Your task to perform on an android device: Go to Yahoo.com Image 0: 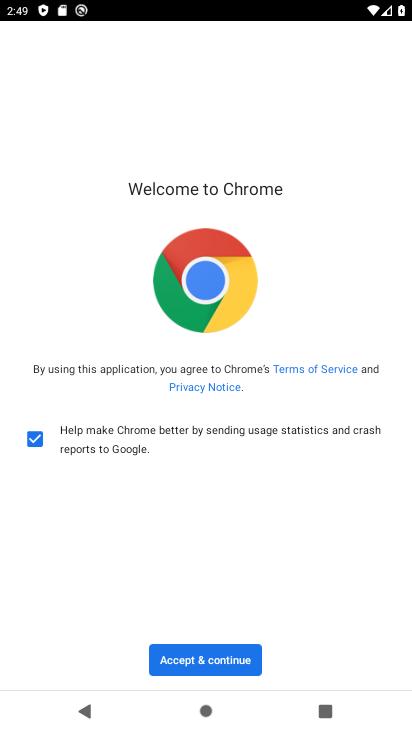
Step 0: press home button
Your task to perform on an android device: Go to Yahoo.com Image 1: 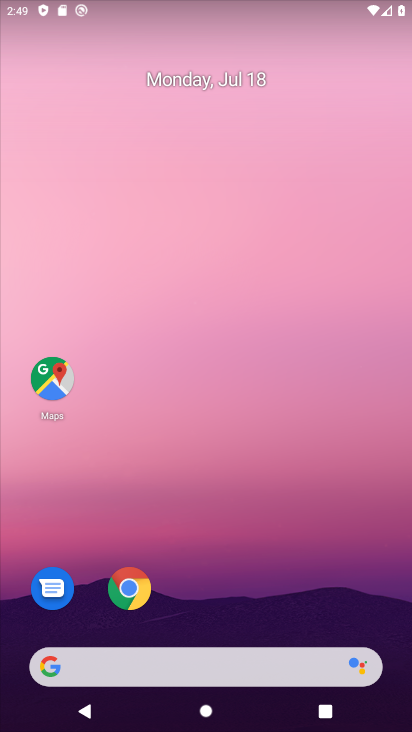
Step 1: drag from (186, 632) to (292, 107)
Your task to perform on an android device: Go to Yahoo.com Image 2: 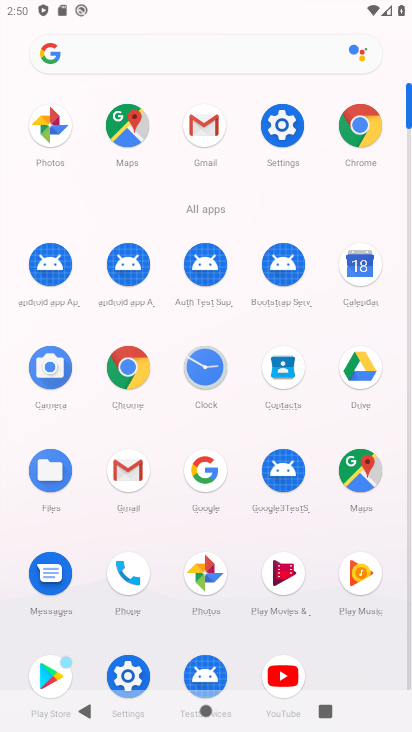
Step 2: click (278, 140)
Your task to perform on an android device: Go to Yahoo.com Image 3: 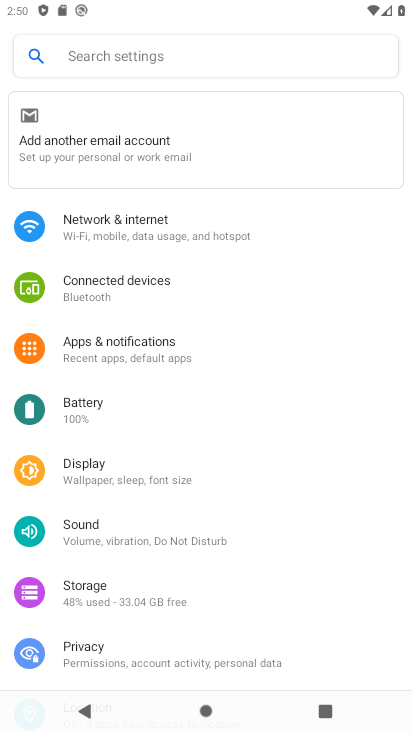
Step 3: press home button
Your task to perform on an android device: Go to Yahoo.com Image 4: 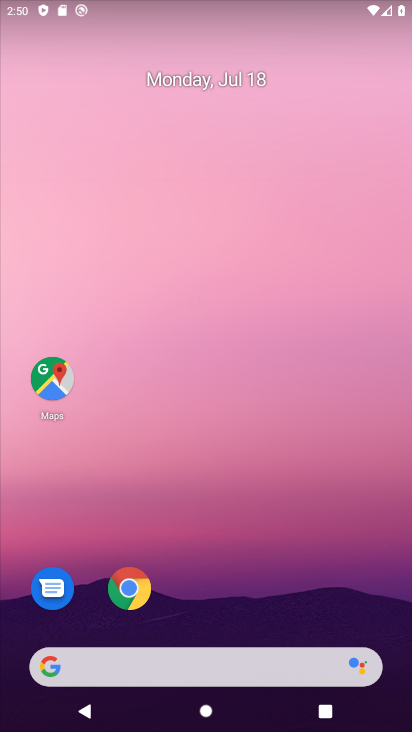
Step 4: click (142, 584)
Your task to perform on an android device: Go to Yahoo.com Image 5: 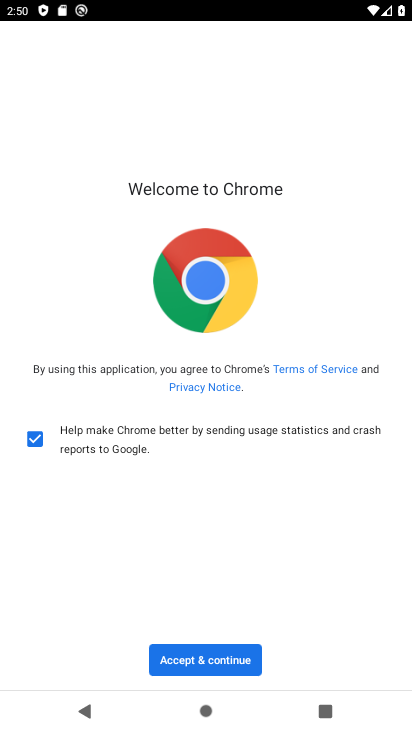
Step 5: click (204, 648)
Your task to perform on an android device: Go to Yahoo.com Image 6: 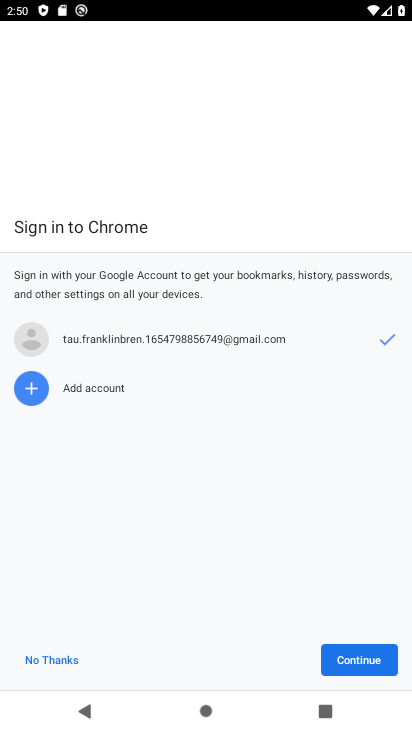
Step 6: click (333, 661)
Your task to perform on an android device: Go to Yahoo.com Image 7: 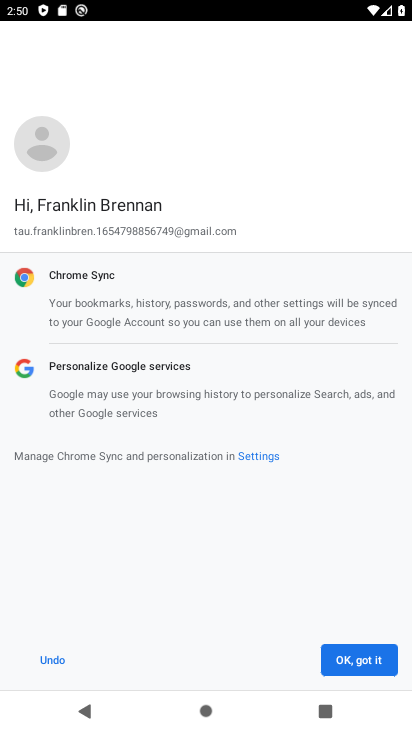
Step 7: click (357, 650)
Your task to perform on an android device: Go to Yahoo.com Image 8: 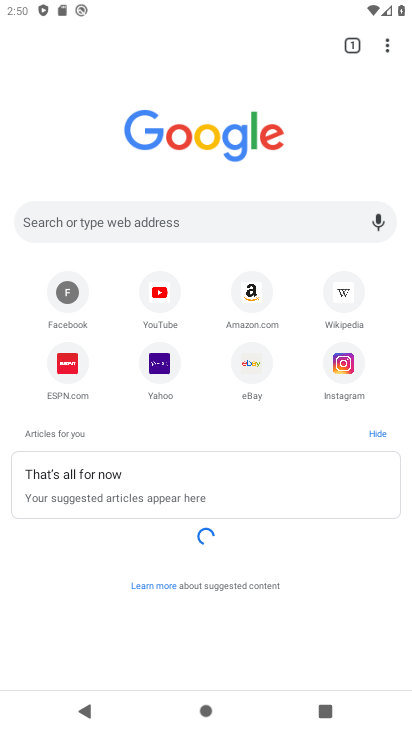
Step 8: click (286, 220)
Your task to perform on an android device: Go to Yahoo.com Image 9: 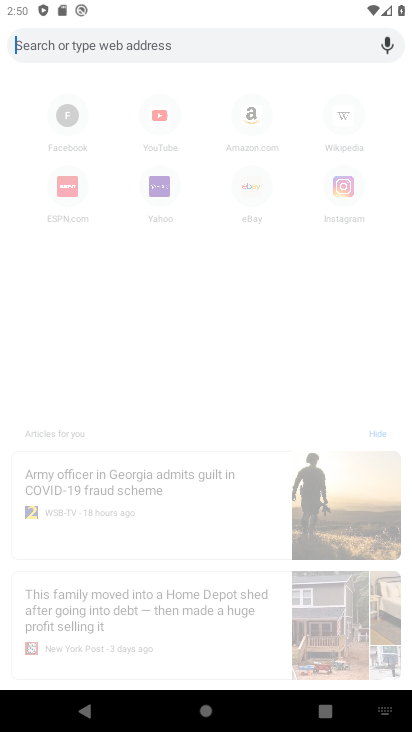
Step 9: type "https://erp.globallogic.com/OA_HTML/AppsLocalLogin.jsp?requestUrl=https%3A%2F%2Ferp.globallogic.com%3A443%2FOA_HTML%2FRF.jsp%3Ffunction_id%3D23273%26resp_id%3D54221%26resp_appl_id%3D800%26security_group_id%3D0%26lang_code%3DUS%26oas%3D-X5ARkuBry5h3FkO-WzjDA&cancelUrl=https%3A%2F%2Ferp.globallogic.com%2FOA_HTML%2FAppsLogin&langCode=US"
Your task to perform on an android device: Go to Yahoo.com Image 10: 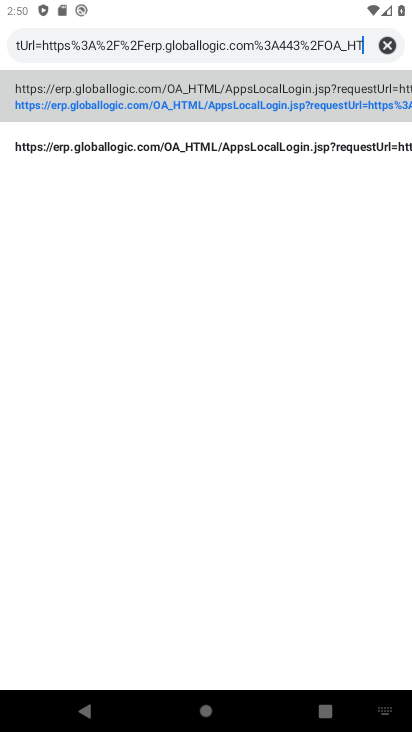
Step 10: task complete